Your task to perform on an android device: toggle sleep mode Image 0: 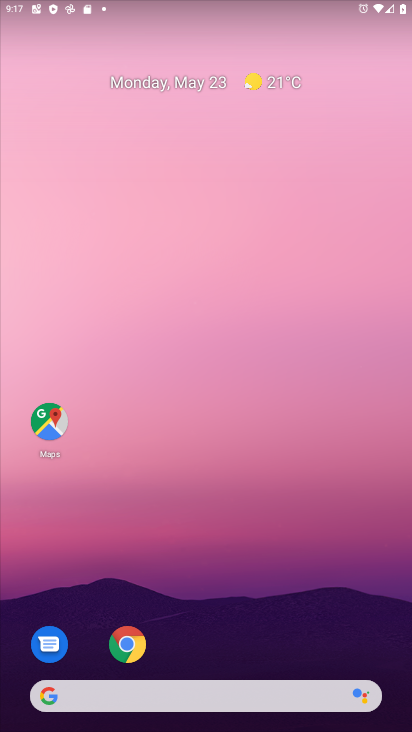
Step 0: drag from (157, 701) to (22, 107)
Your task to perform on an android device: toggle sleep mode Image 1: 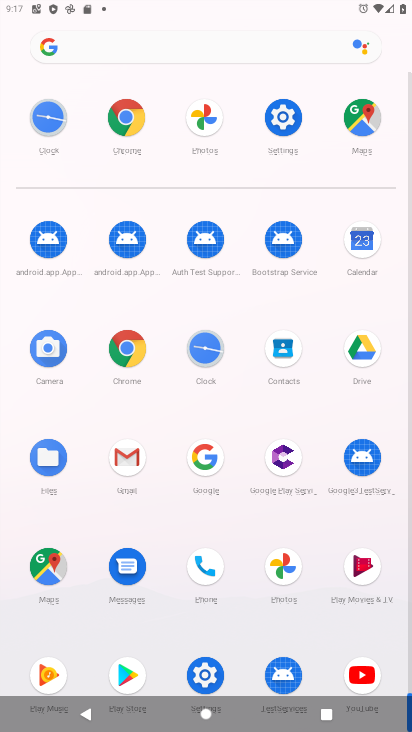
Step 1: click (281, 156)
Your task to perform on an android device: toggle sleep mode Image 2: 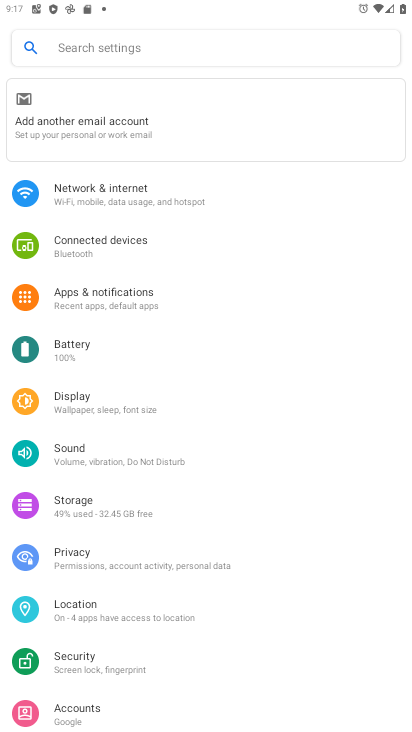
Step 2: click (188, 408)
Your task to perform on an android device: toggle sleep mode Image 3: 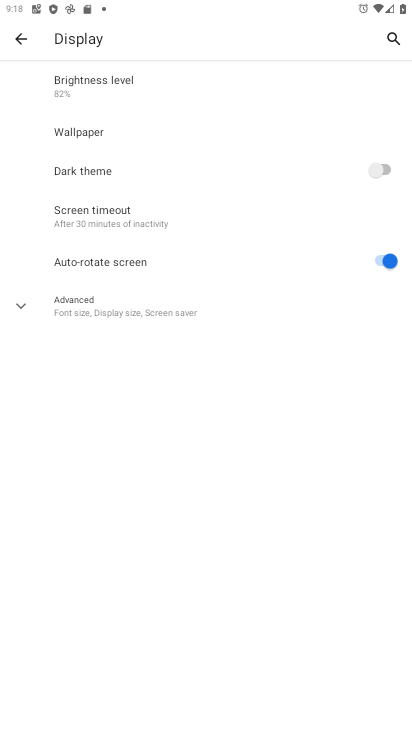
Step 3: task complete